Your task to perform on an android device: Go to Google Image 0: 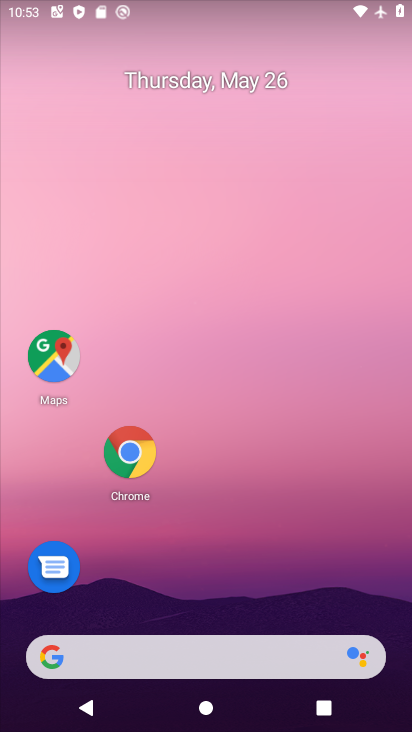
Step 0: press home button
Your task to perform on an android device: Go to Google Image 1: 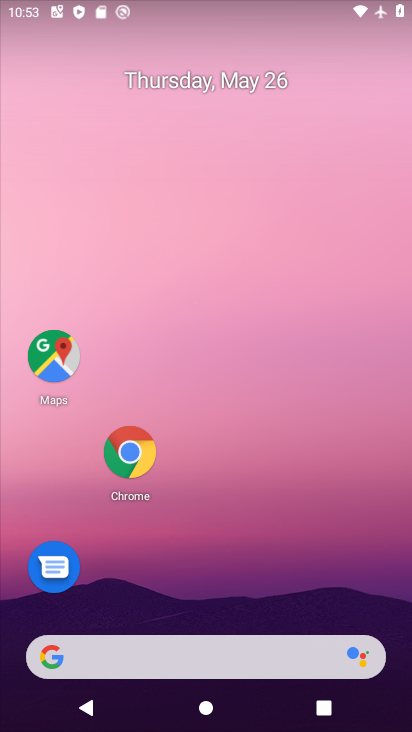
Step 1: click (55, 659)
Your task to perform on an android device: Go to Google Image 2: 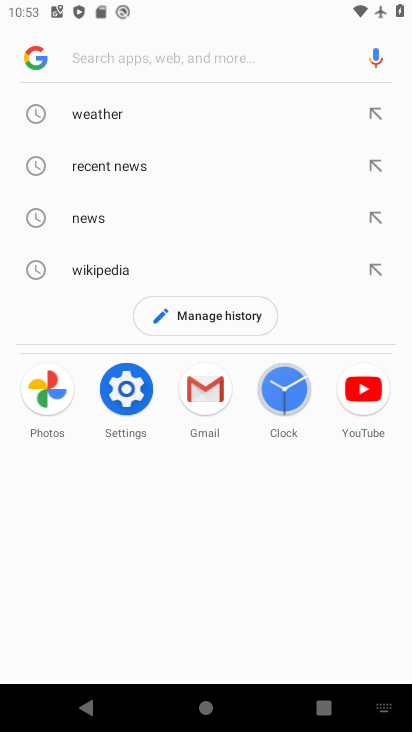
Step 2: click (41, 58)
Your task to perform on an android device: Go to Google Image 3: 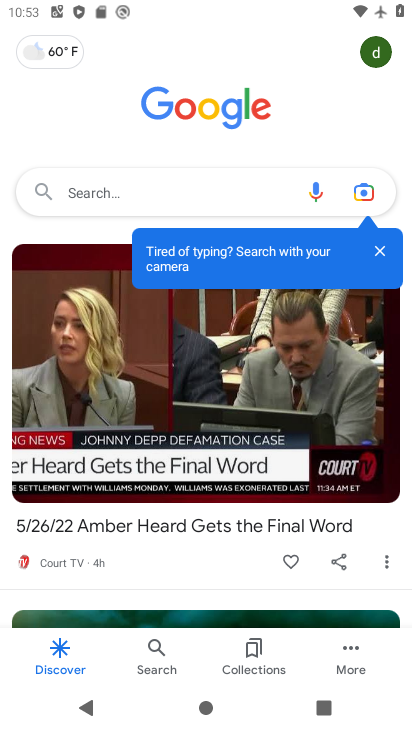
Step 3: task complete